Your task to perform on an android device: Open maps Image 0: 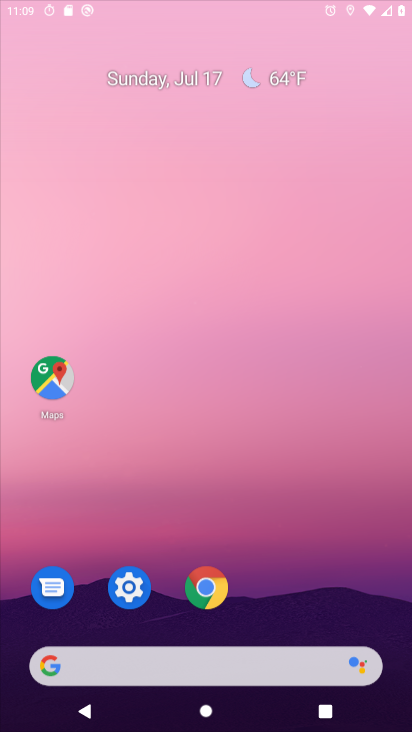
Step 0: click (401, 529)
Your task to perform on an android device: Open maps Image 1: 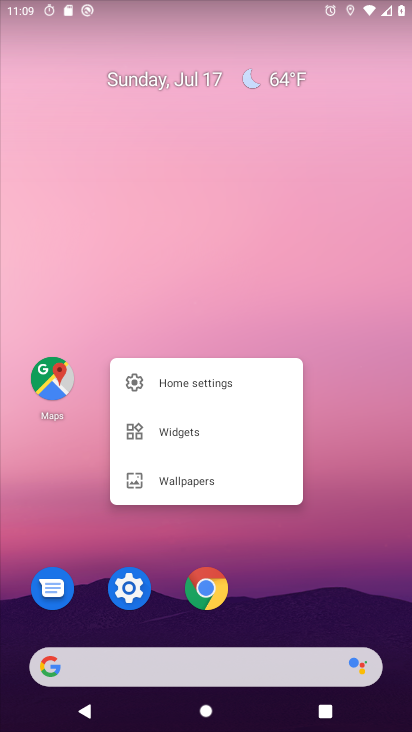
Step 1: drag from (297, 475) to (293, 33)
Your task to perform on an android device: Open maps Image 2: 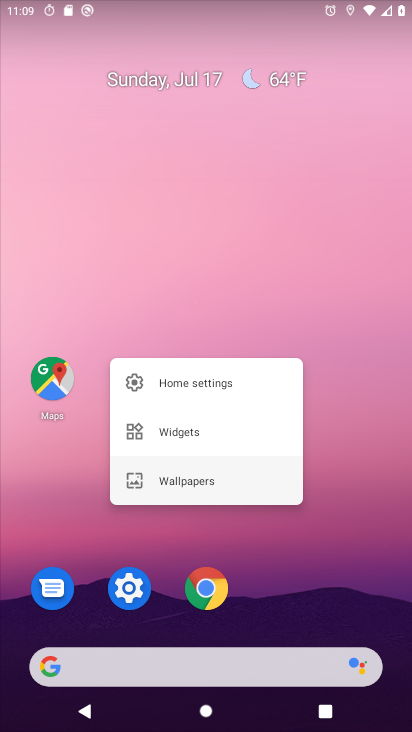
Step 2: click (358, 266)
Your task to perform on an android device: Open maps Image 3: 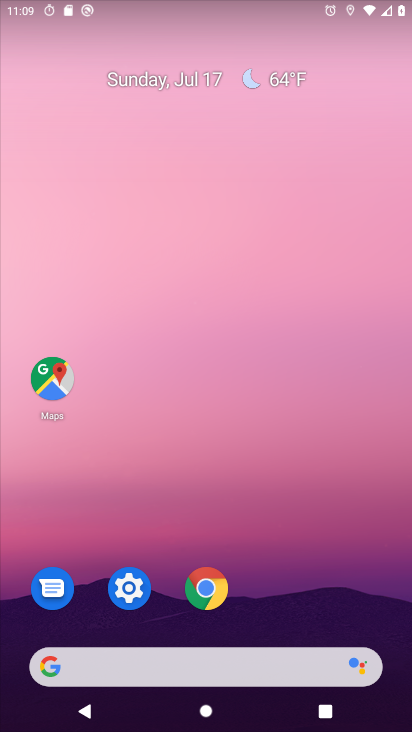
Step 3: click (344, 260)
Your task to perform on an android device: Open maps Image 4: 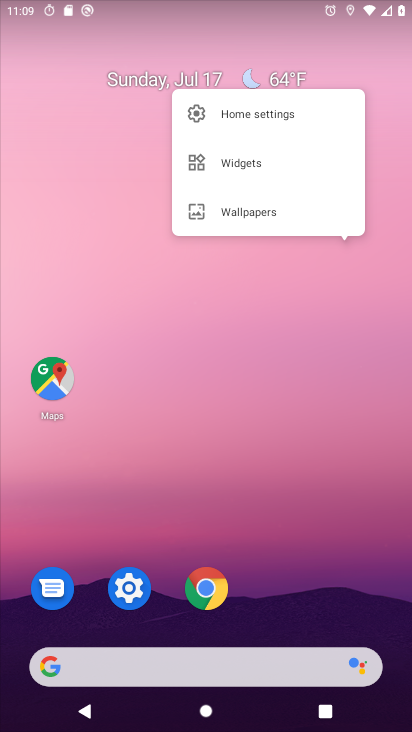
Step 4: drag from (240, 662) to (123, 124)
Your task to perform on an android device: Open maps Image 5: 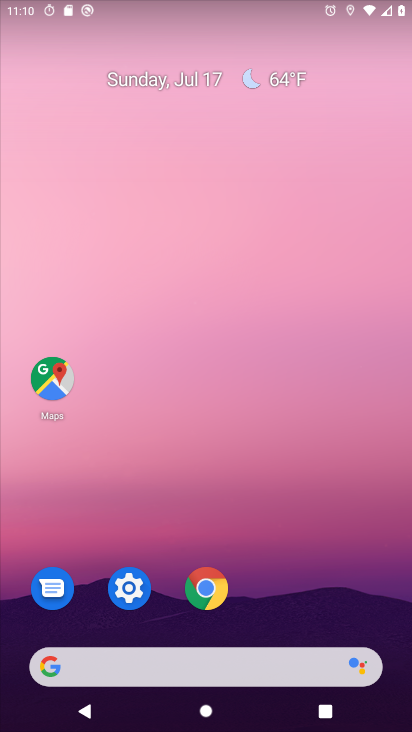
Step 5: drag from (272, 667) to (125, 124)
Your task to perform on an android device: Open maps Image 6: 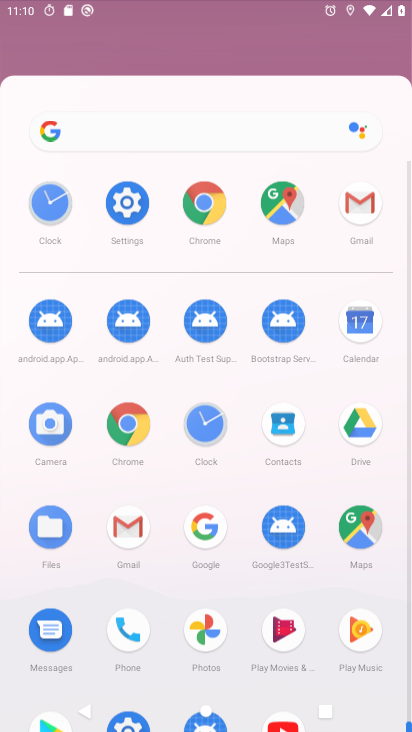
Step 6: drag from (227, 537) to (221, 47)
Your task to perform on an android device: Open maps Image 7: 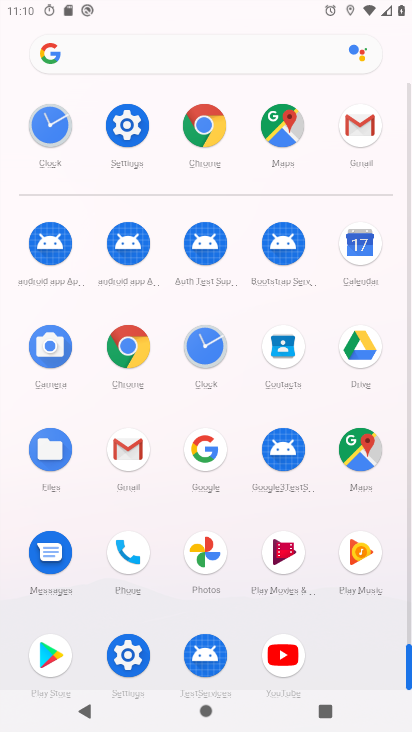
Step 7: click (360, 444)
Your task to perform on an android device: Open maps Image 8: 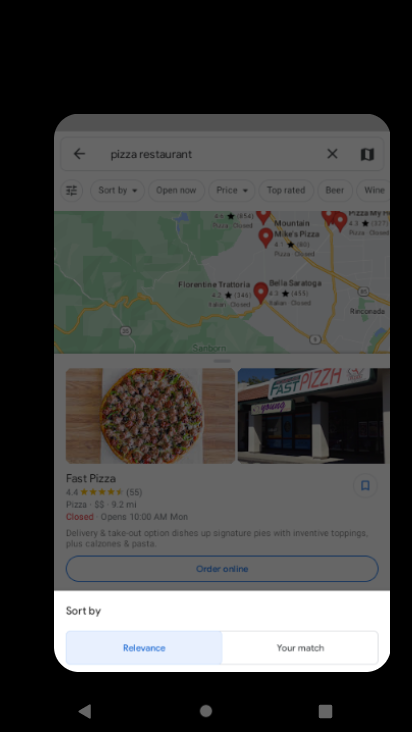
Step 8: click (366, 449)
Your task to perform on an android device: Open maps Image 9: 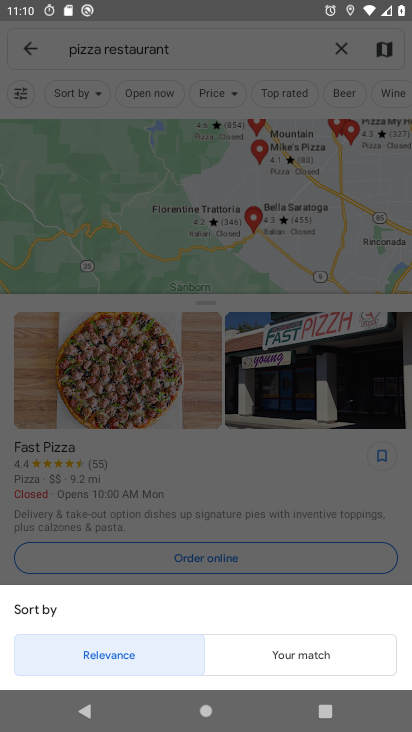
Step 9: click (175, 399)
Your task to perform on an android device: Open maps Image 10: 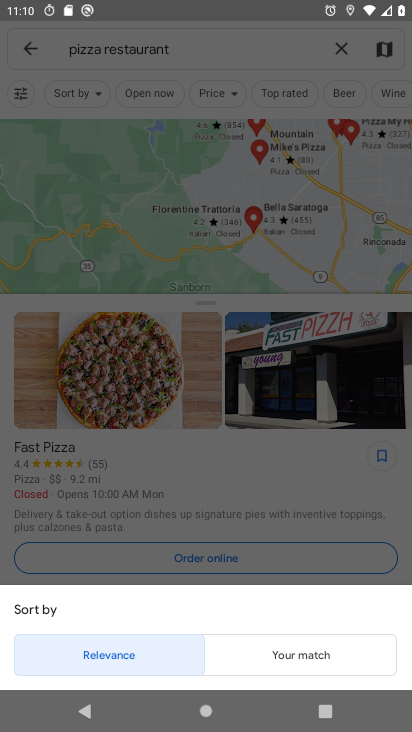
Step 10: click (176, 400)
Your task to perform on an android device: Open maps Image 11: 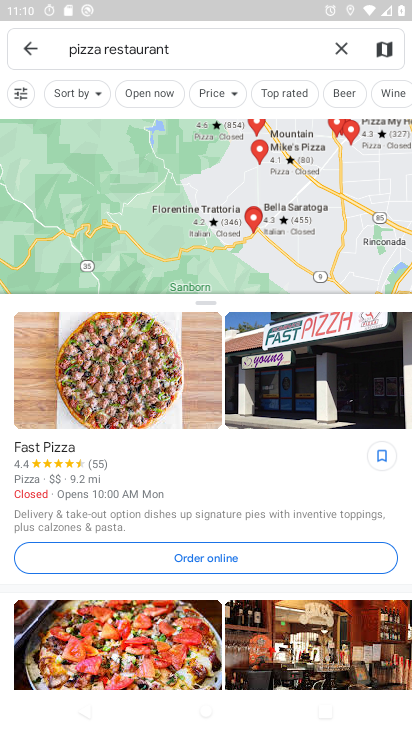
Step 11: click (178, 401)
Your task to perform on an android device: Open maps Image 12: 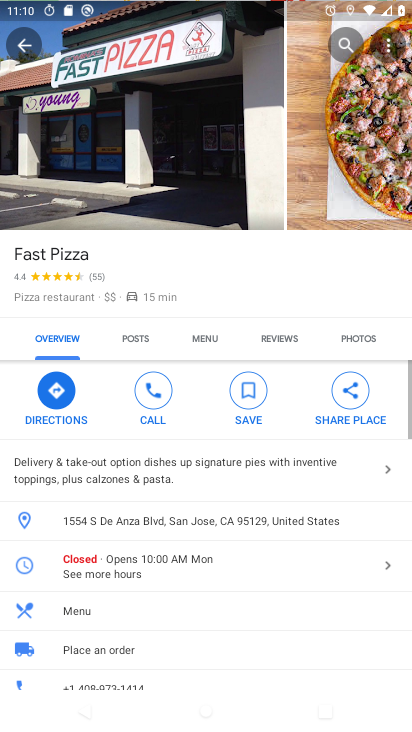
Step 12: task complete